Your task to perform on an android device: turn smart compose on in the gmail app Image 0: 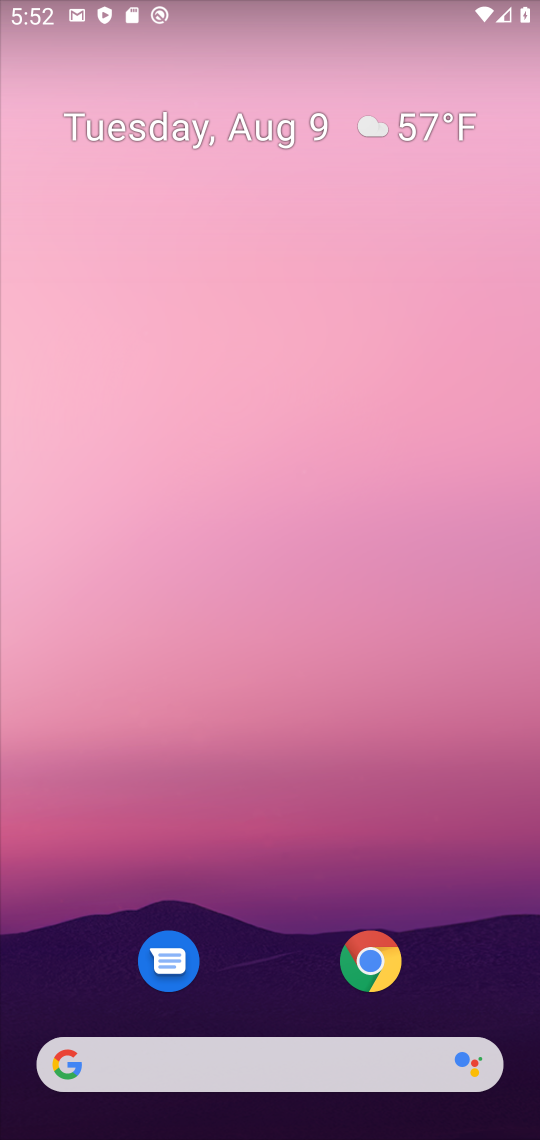
Step 0: drag from (118, 569) to (171, 526)
Your task to perform on an android device: turn smart compose on in the gmail app Image 1: 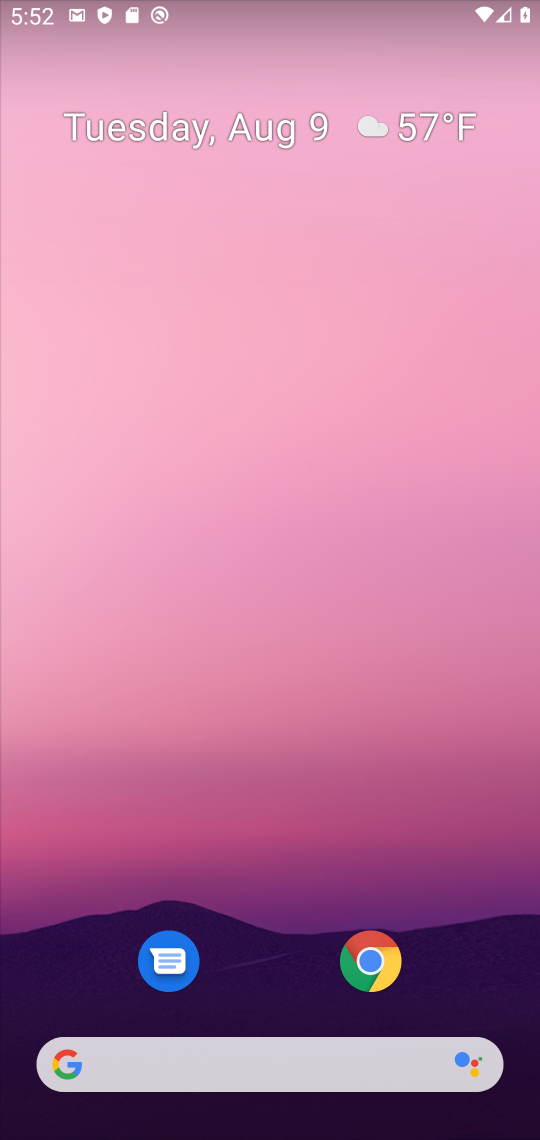
Step 1: drag from (283, 1042) to (185, 342)
Your task to perform on an android device: turn smart compose on in the gmail app Image 2: 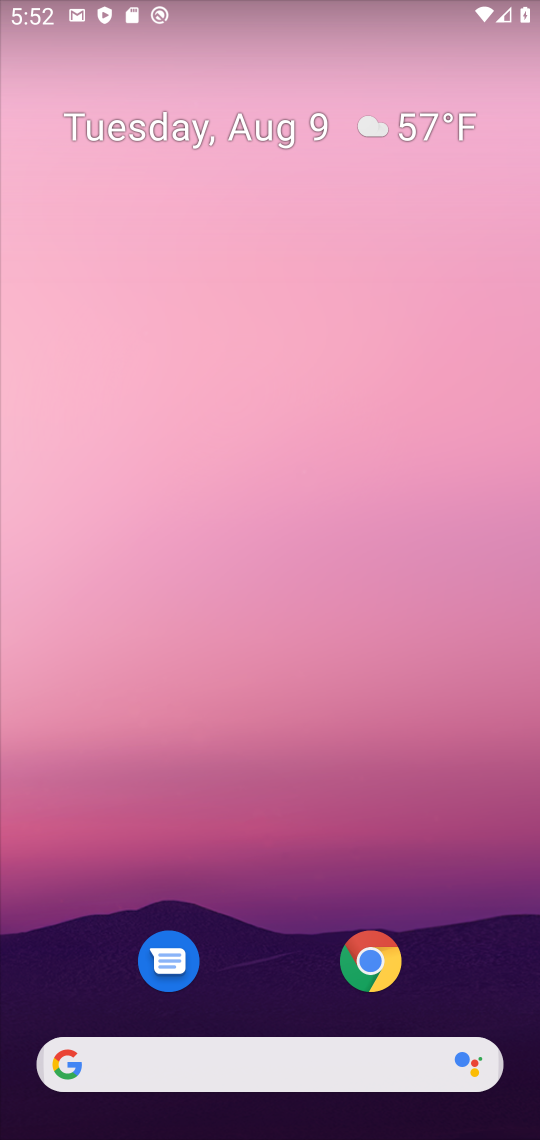
Step 2: drag from (202, 925) to (206, 400)
Your task to perform on an android device: turn smart compose on in the gmail app Image 3: 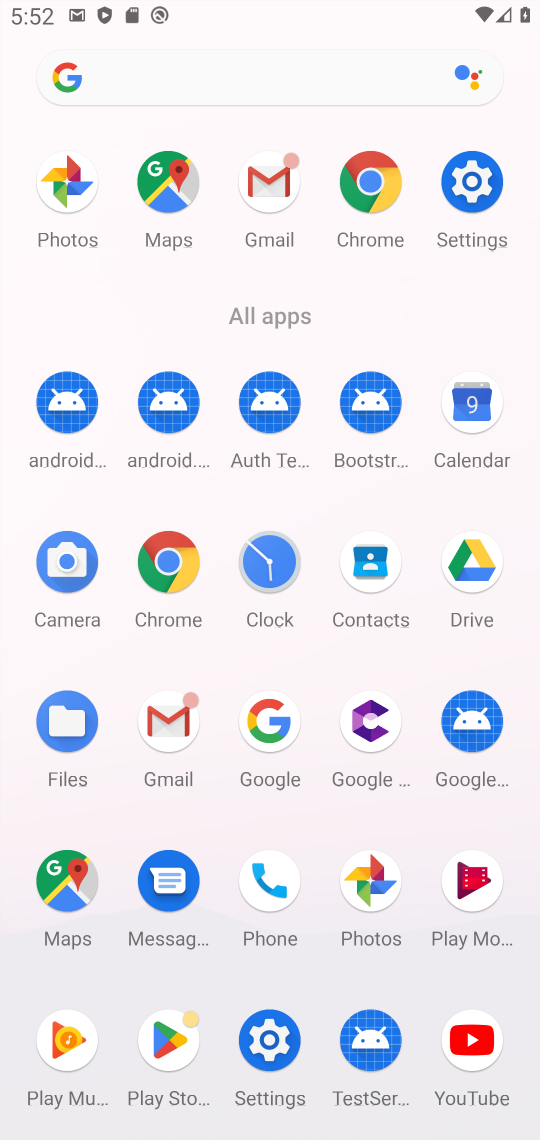
Step 3: click (177, 728)
Your task to perform on an android device: turn smart compose on in the gmail app Image 4: 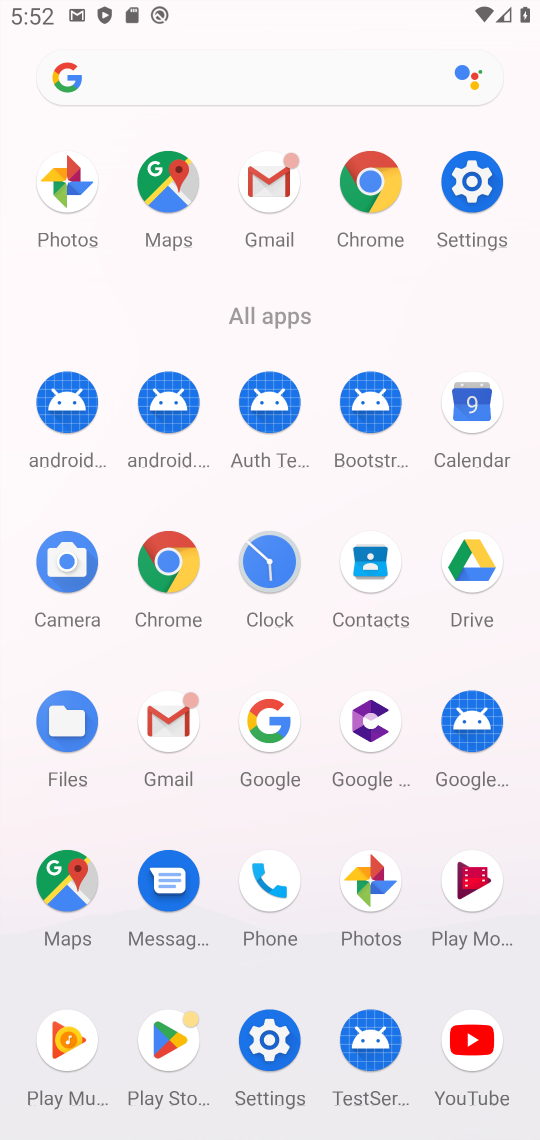
Step 4: click (170, 734)
Your task to perform on an android device: turn smart compose on in the gmail app Image 5: 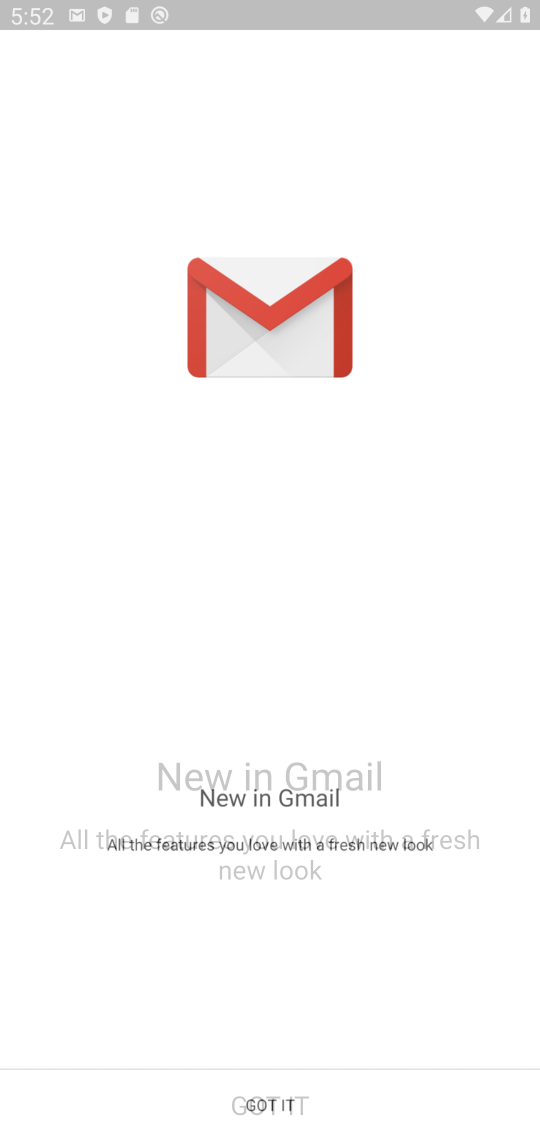
Step 5: click (164, 740)
Your task to perform on an android device: turn smart compose on in the gmail app Image 6: 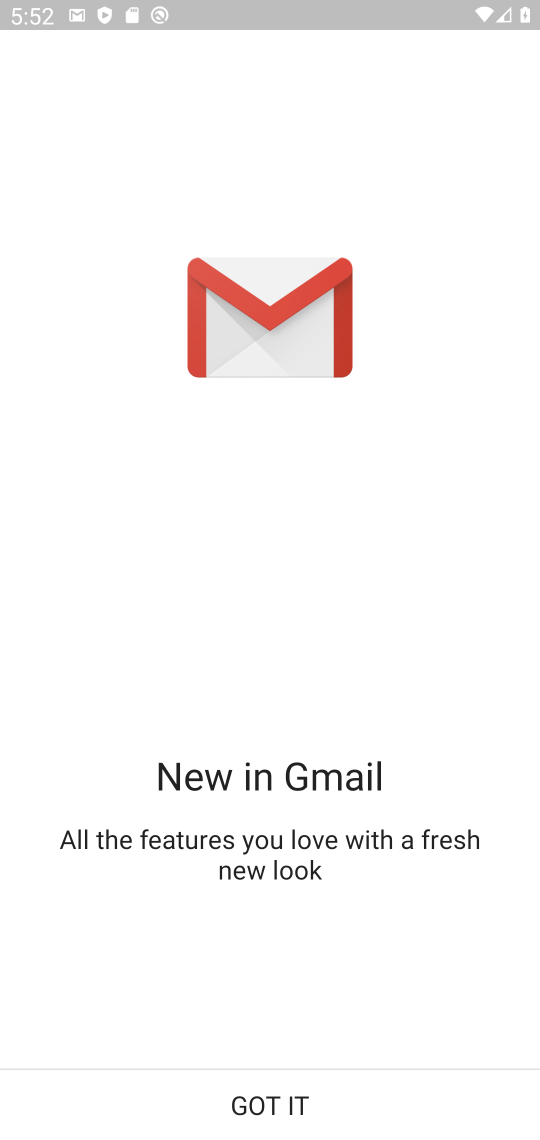
Step 6: click (164, 747)
Your task to perform on an android device: turn smart compose on in the gmail app Image 7: 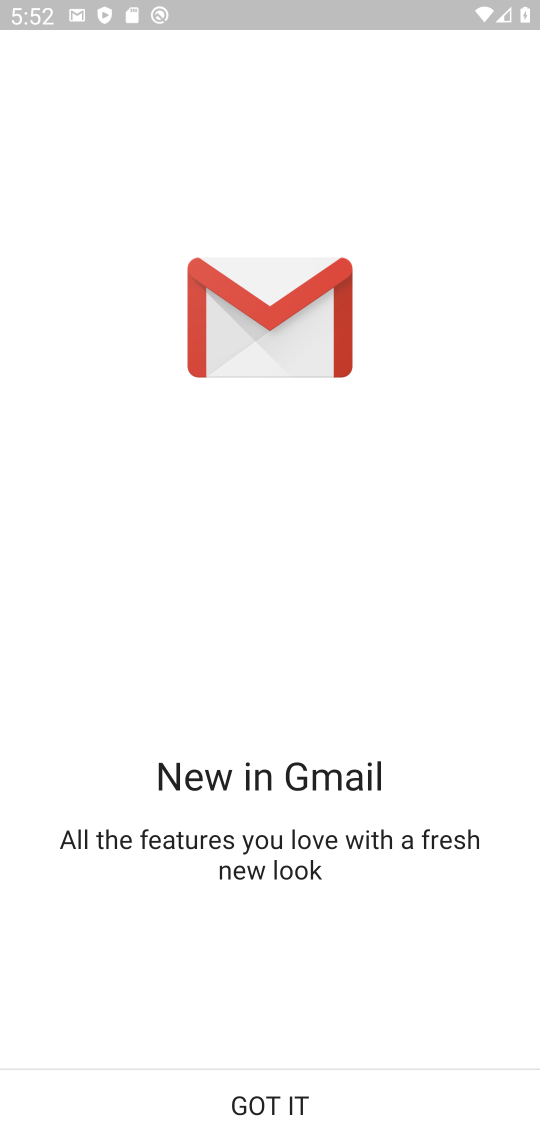
Step 7: click (171, 731)
Your task to perform on an android device: turn smart compose on in the gmail app Image 8: 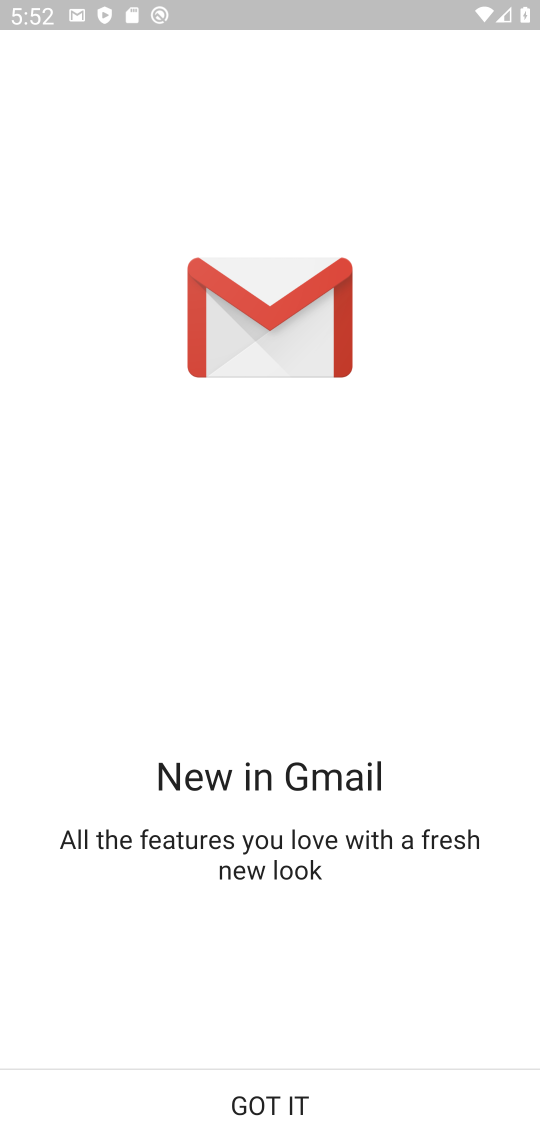
Step 8: click (293, 1071)
Your task to perform on an android device: turn smart compose on in the gmail app Image 9: 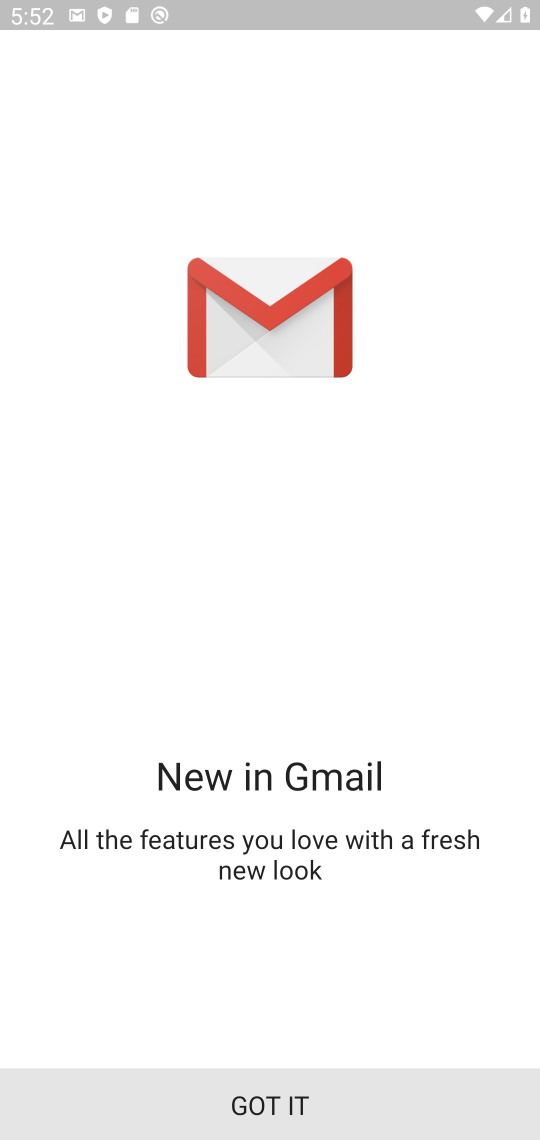
Step 9: click (304, 1106)
Your task to perform on an android device: turn smart compose on in the gmail app Image 10: 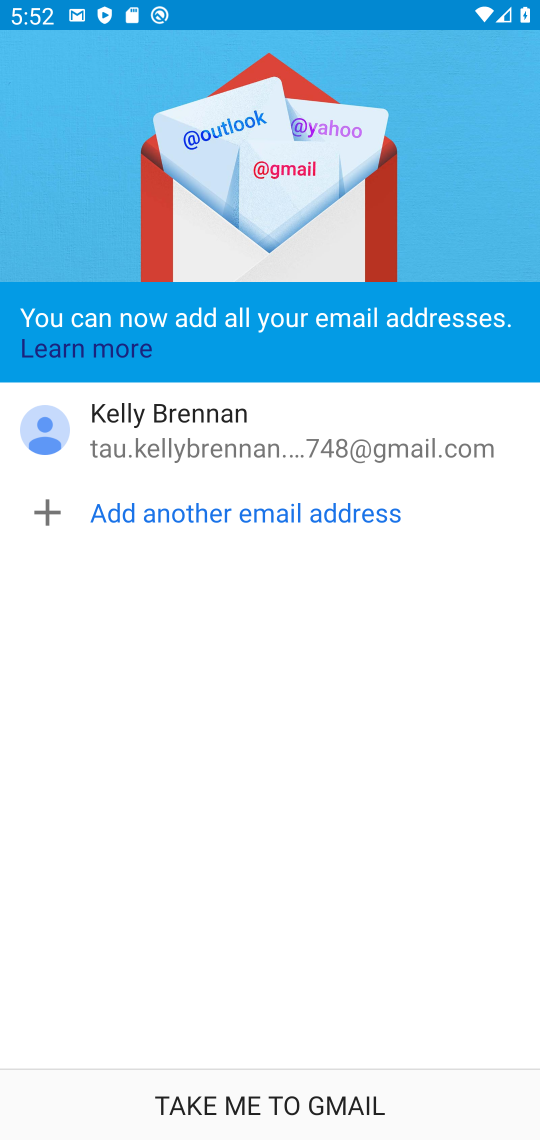
Step 10: click (306, 1094)
Your task to perform on an android device: turn smart compose on in the gmail app Image 11: 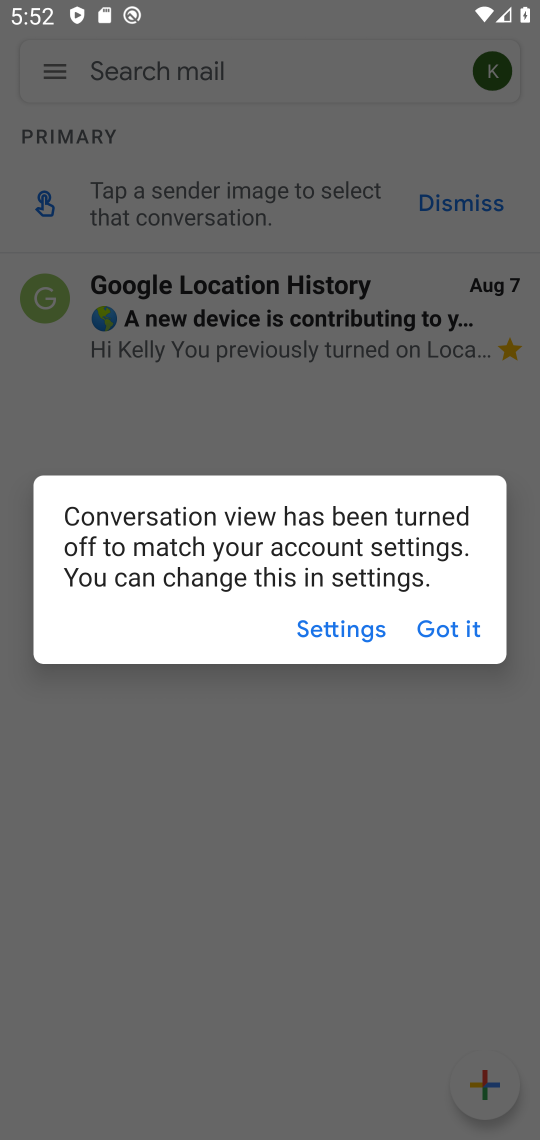
Step 11: click (450, 618)
Your task to perform on an android device: turn smart compose on in the gmail app Image 12: 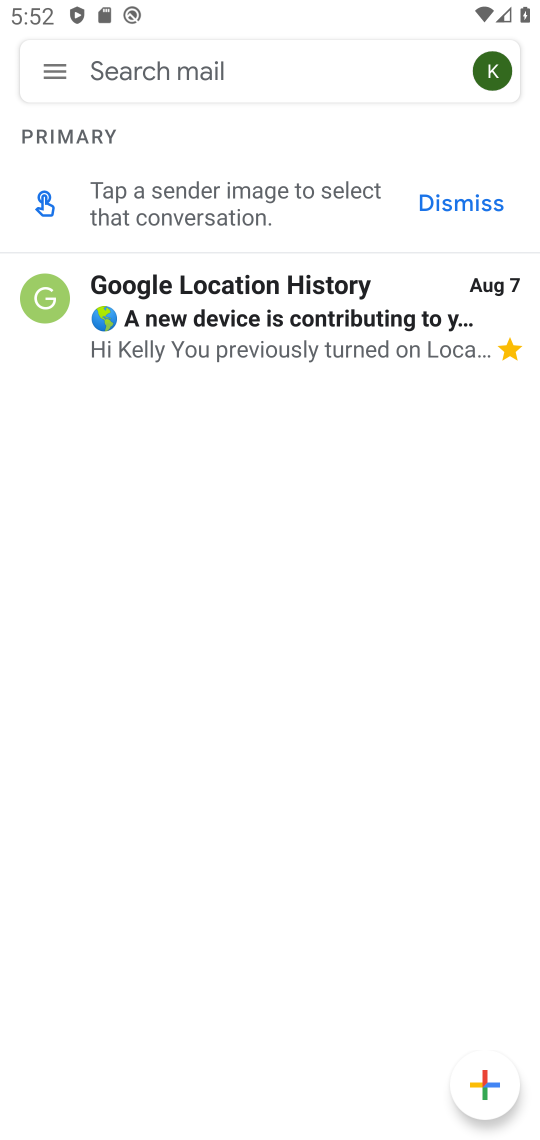
Step 12: click (47, 89)
Your task to perform on an android device: turn smart compose on in the gmail app Image 13: 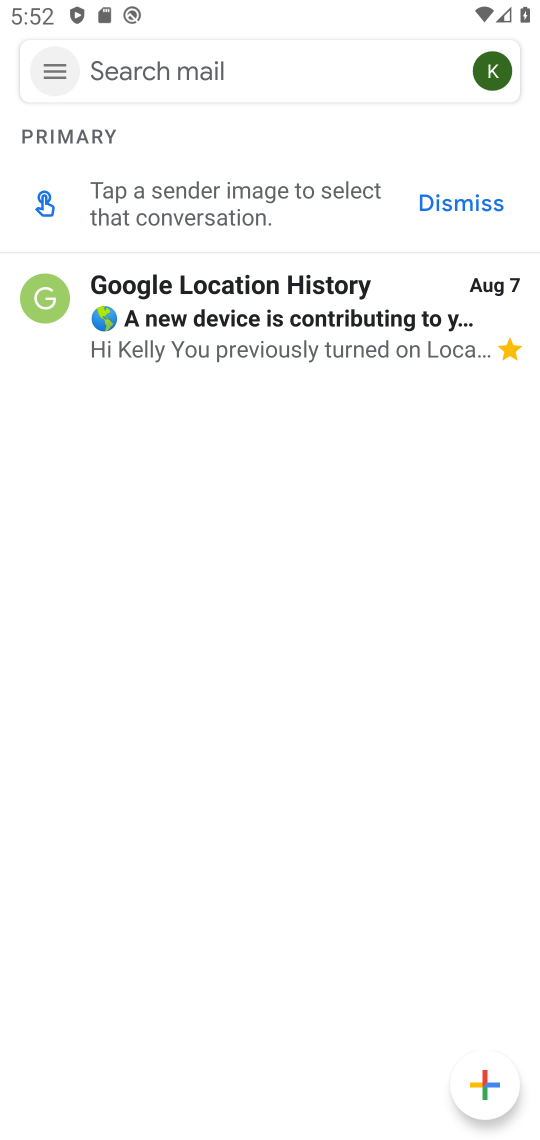
Step 13: click (49, 72)
Your task to perform on an android device: turn smart compose on in the gmail app Image 14: 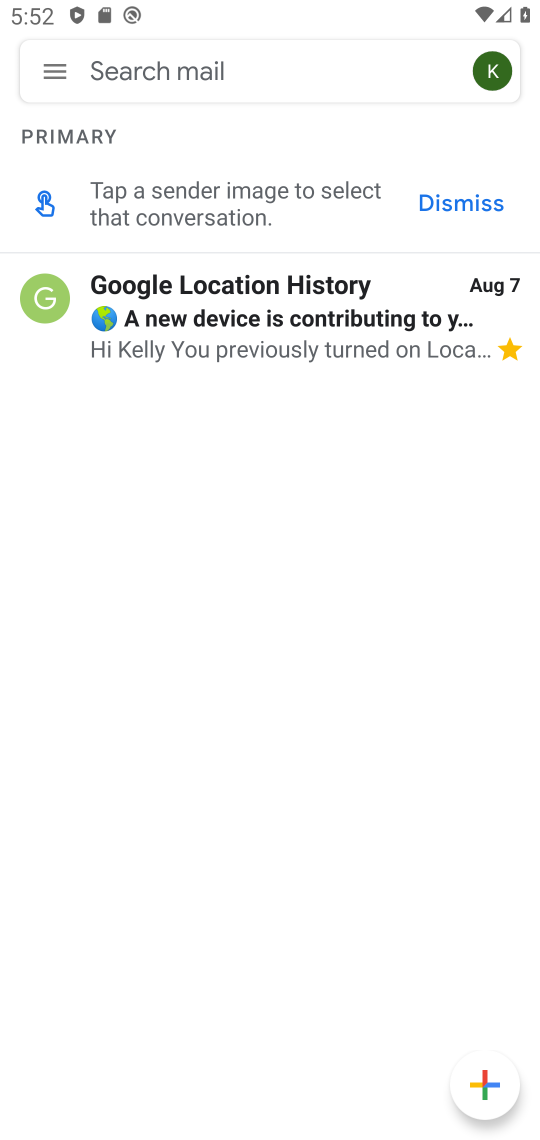
Step 14: click (51, 72)
Your task to perform on an android device: turn smart compose on in the gmail app Image 15: 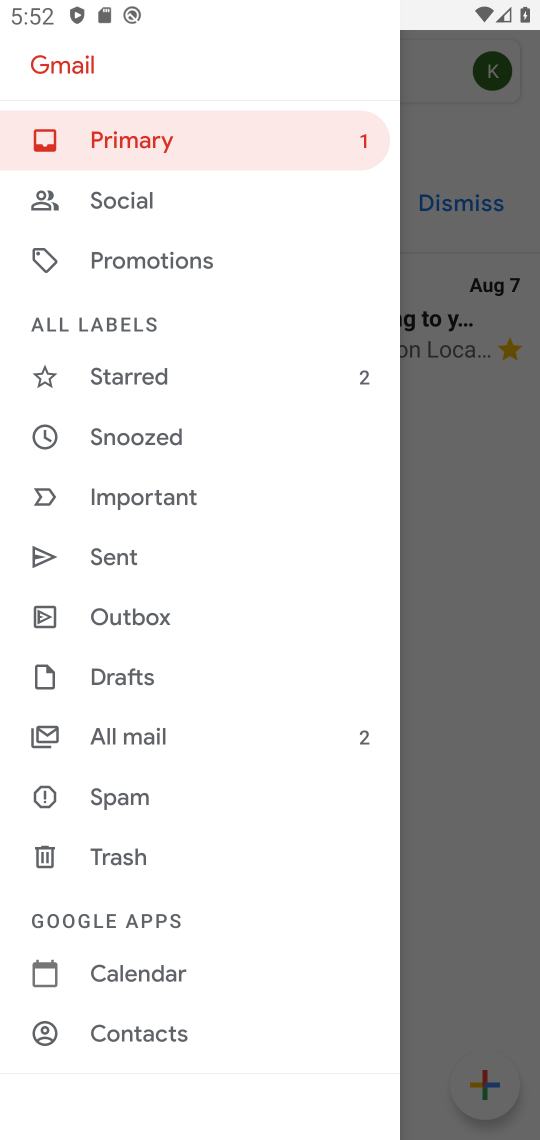
Step 15: drag from (163, 971) to (150, 273)
Your task to perform on an android device: turn smart compose on in the gmail app Image 16: 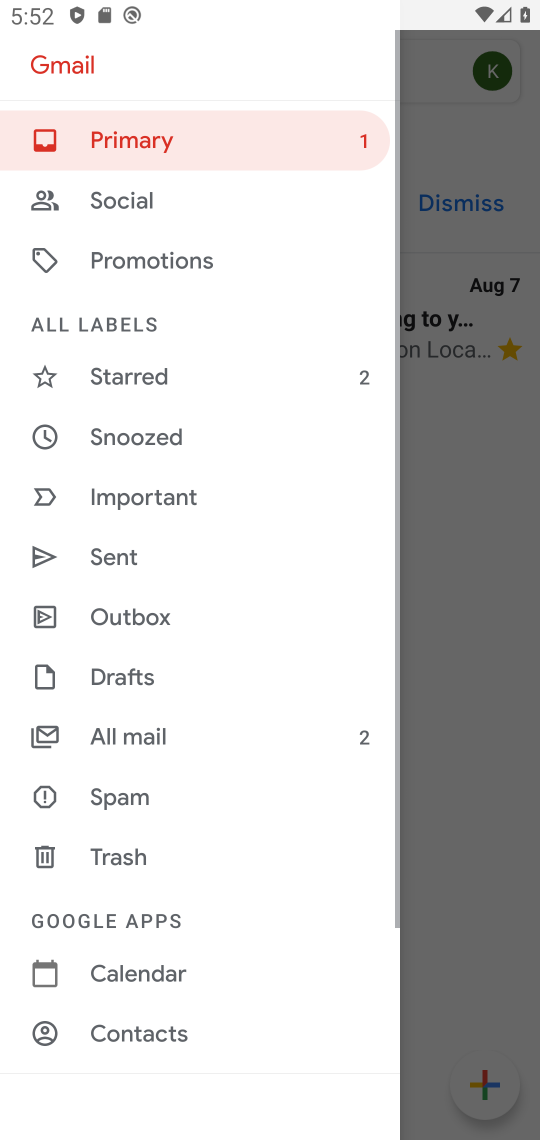
Step 16: drag from (59, 909) to (50, 284)
Your task to perform on an android device: turn smart compose on in the gmail app Image 17: 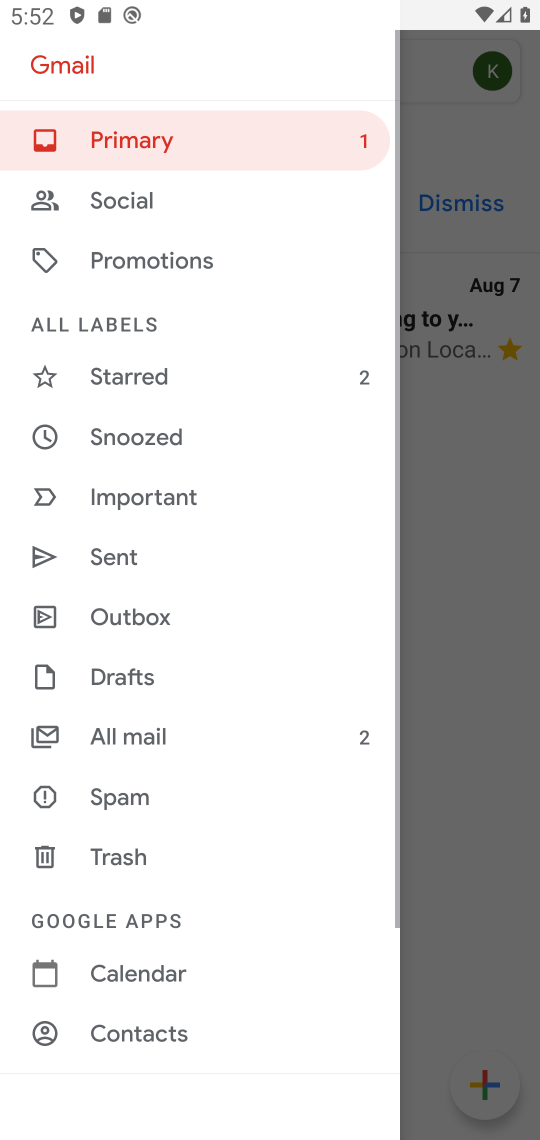
Step 17: drag from (130, 866) to (153, 267)
Your task to perform on an android device: turn smart compose on in the gmail app Image 18: 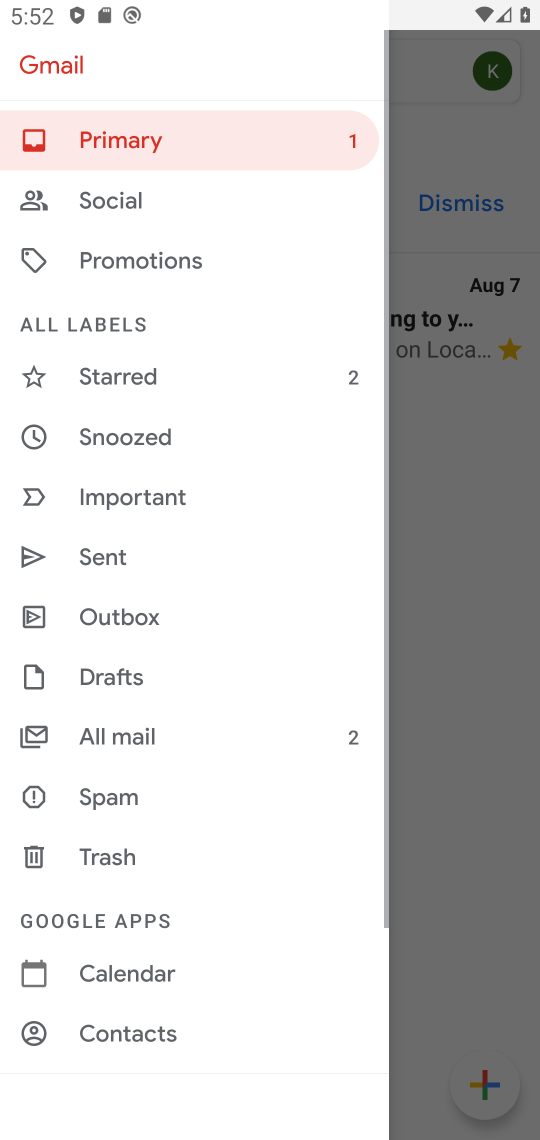
Step 18: drag from (155, 1016) to (143, 268)
Your task to perform on an android device: turn smart compose on in the gmail app Image 19: 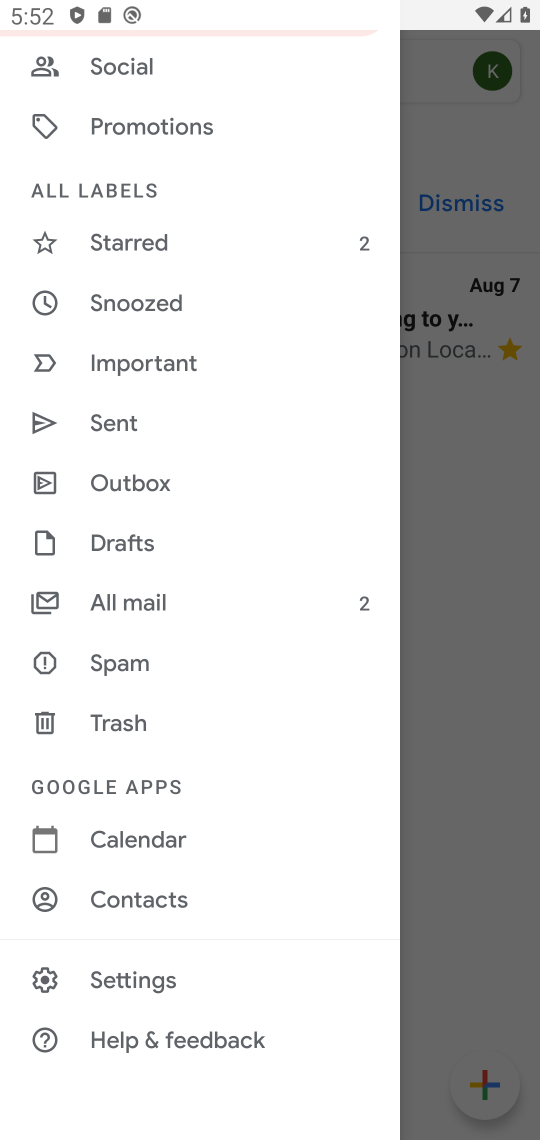
Step 19: click (134, 977)
Your task to perform on an android device: turn smart compose on in the gmail app Image 20: 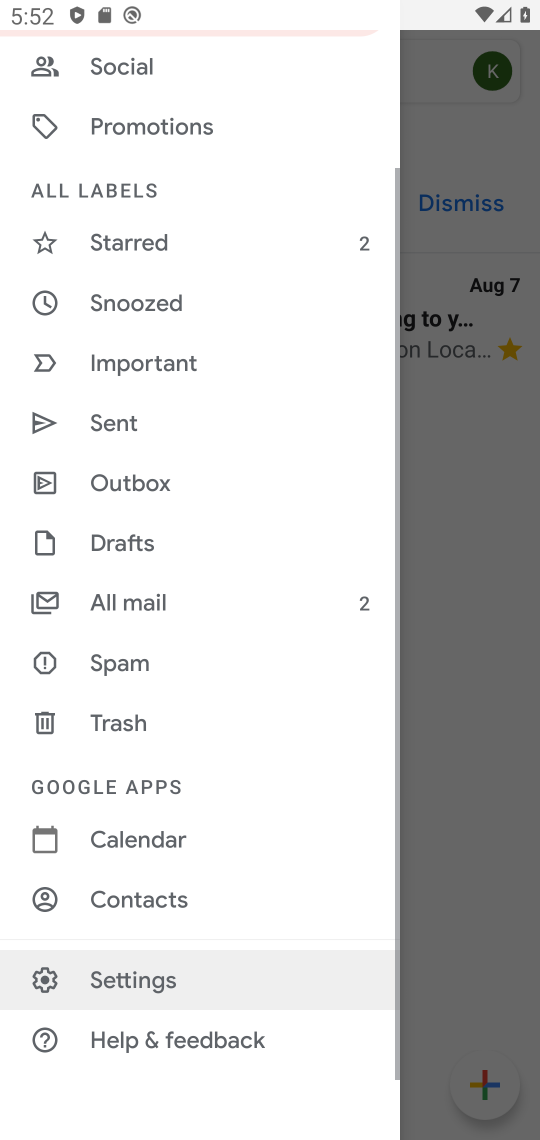
Step 20: click (134, 974)
Your task to perform on an android device: turn smart compose on in the gmail app Image 21: 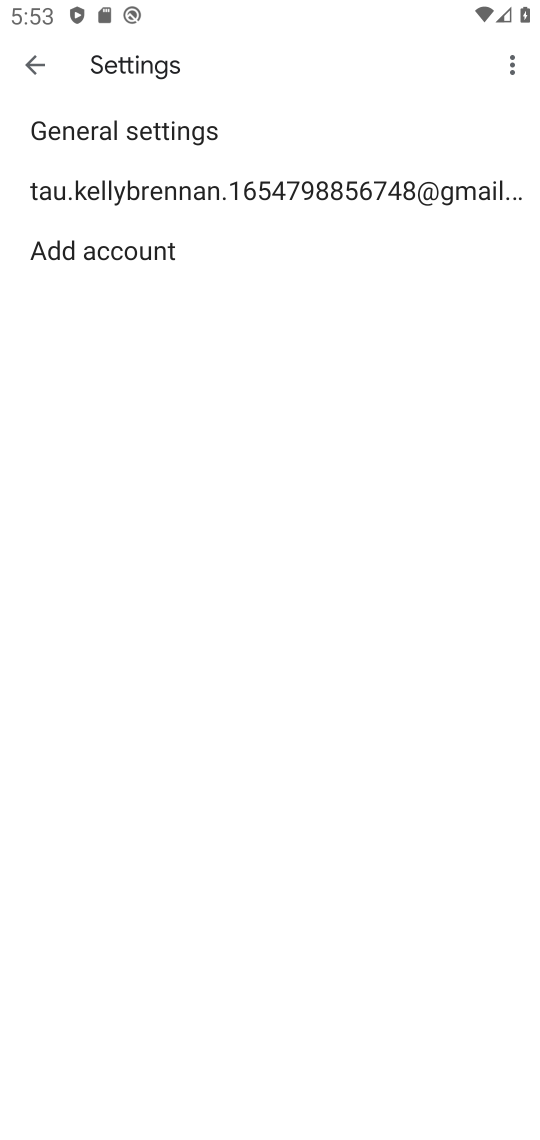
Step 21: click (87, 188)
Your task to perform on an android device: turn smart compose on in the gmail app Image 22: 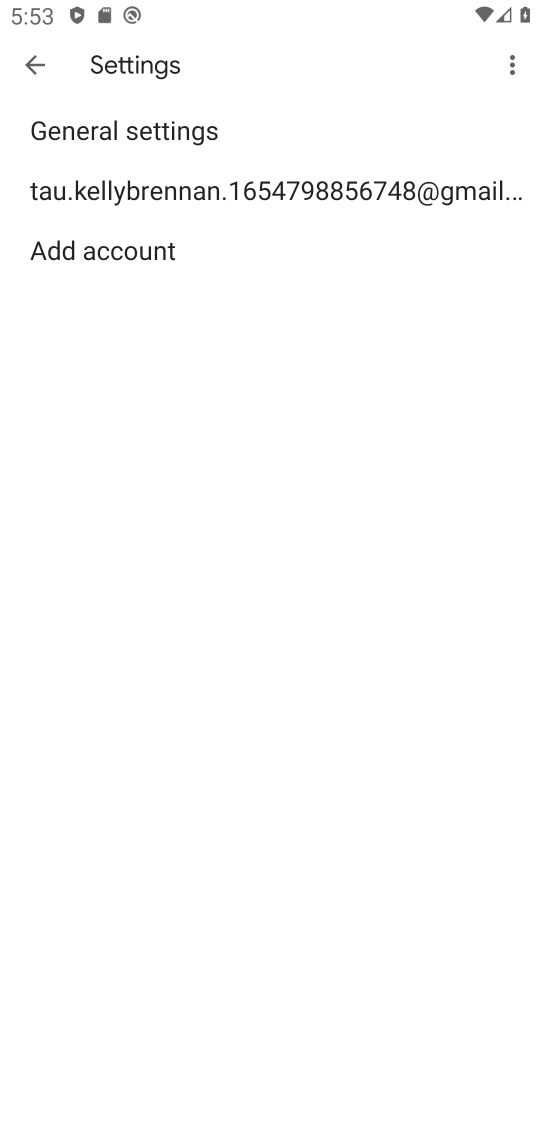
Step 22: click (95, 187)
Your task to perform on an android device: turn smart compose on in the gmail app Image 23: 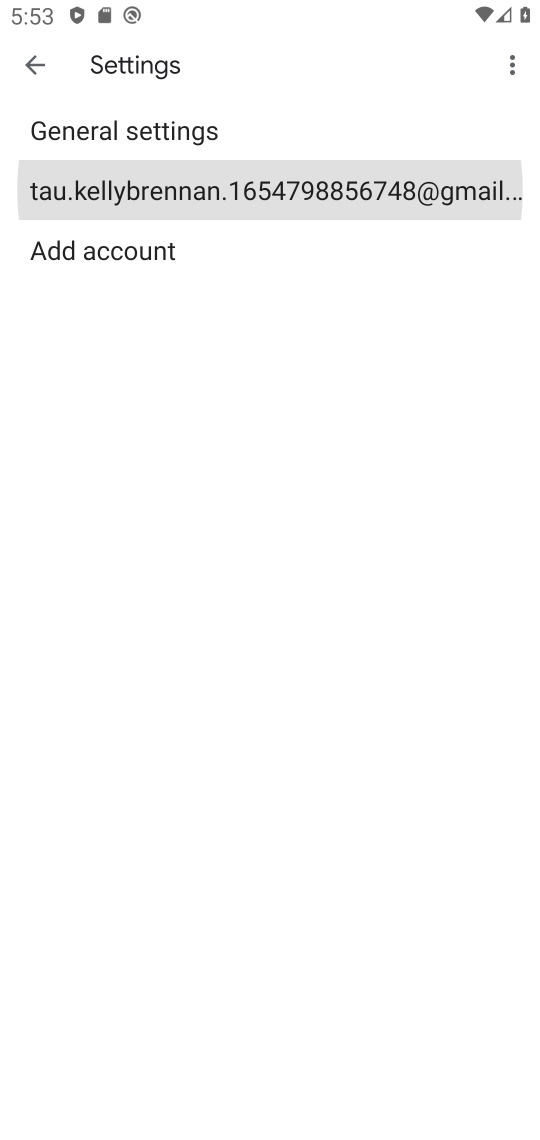
Step 23: click (93, 181)
Your task to perform on an android device: turn smart compose on in the gmail app Image 24: 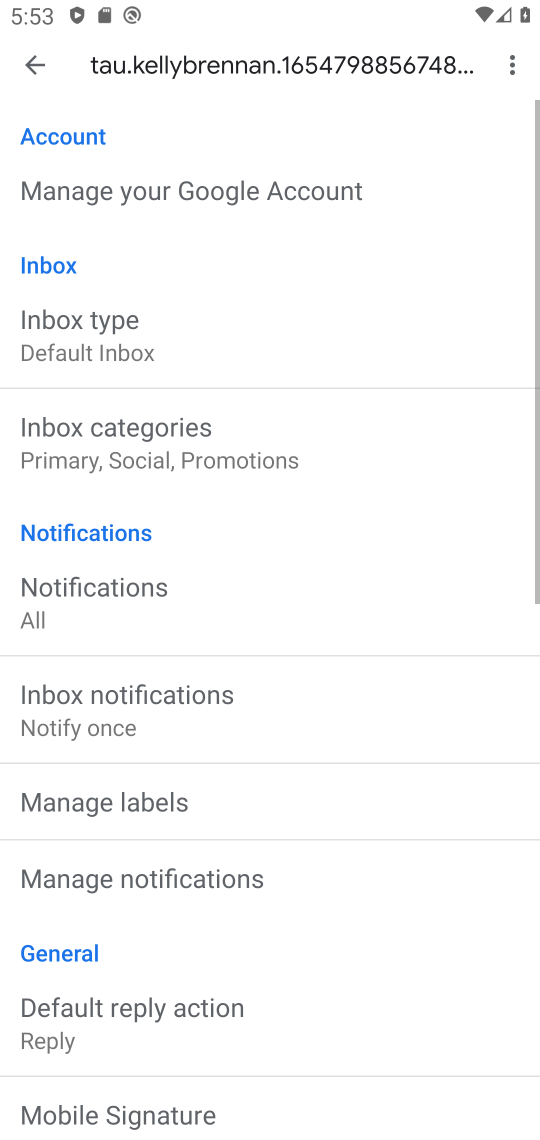
Step 24: click (96, 179)
Your task to perform on an android device: turn smart compose on in the gmail app Image 25: 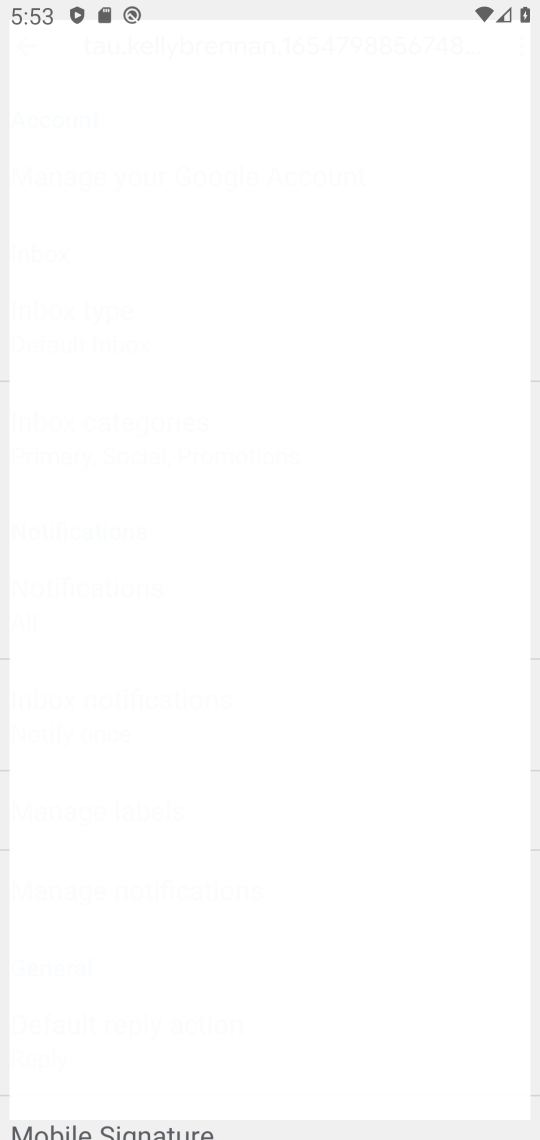
Step 25: drag from (146, 1020) to (129, 500)
Your task to perform on an android device: turn smart compose on in the gmail app Image 26: 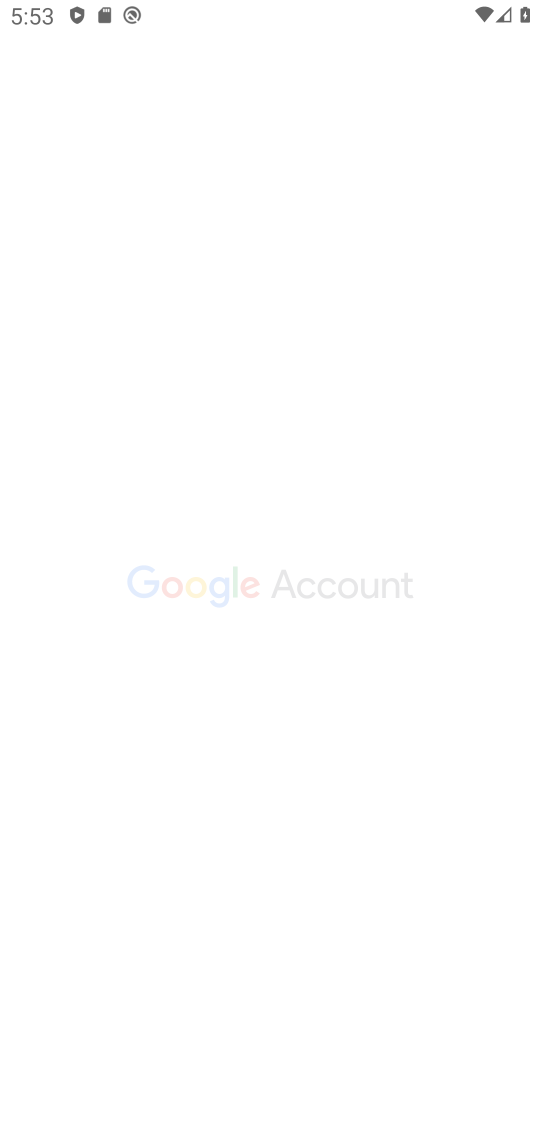
Step 26: click (92, 270)
Your task to perform on an android device: turn smart compose on in the gmail app Image 27: 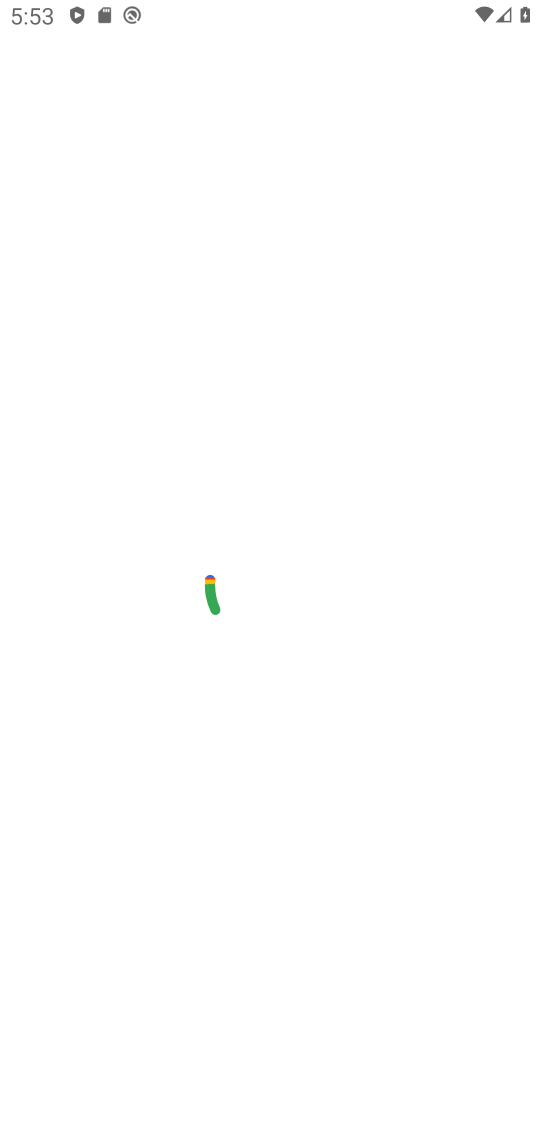
Step 27: press back button
Your task to perform on an android device: turn smart compose on in the gmail app Image 28: 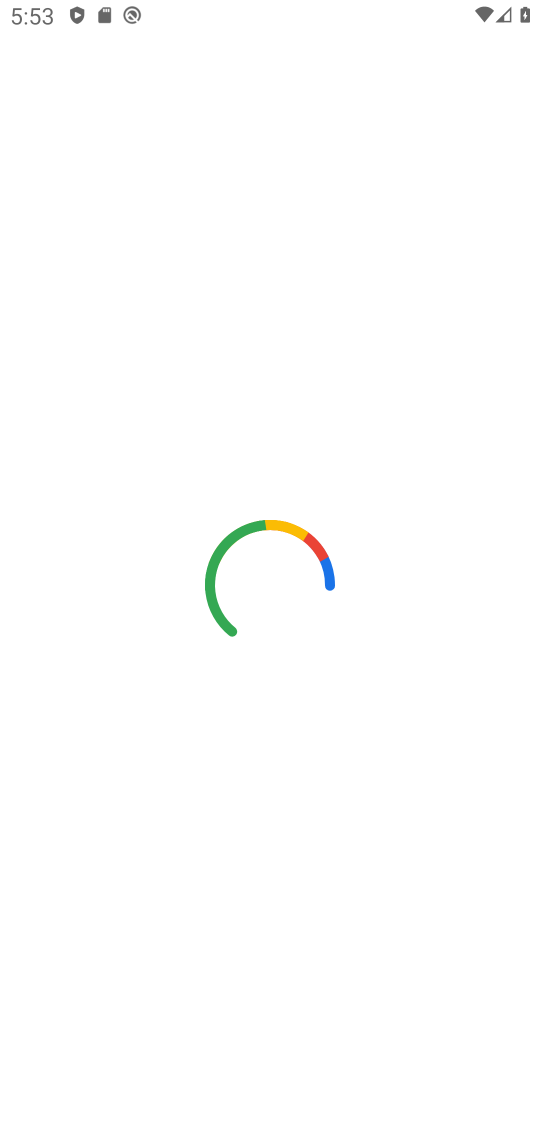
Step 28: press back button
Your task to perform on an android device: turn smart compose on in the gmail app Image 29: 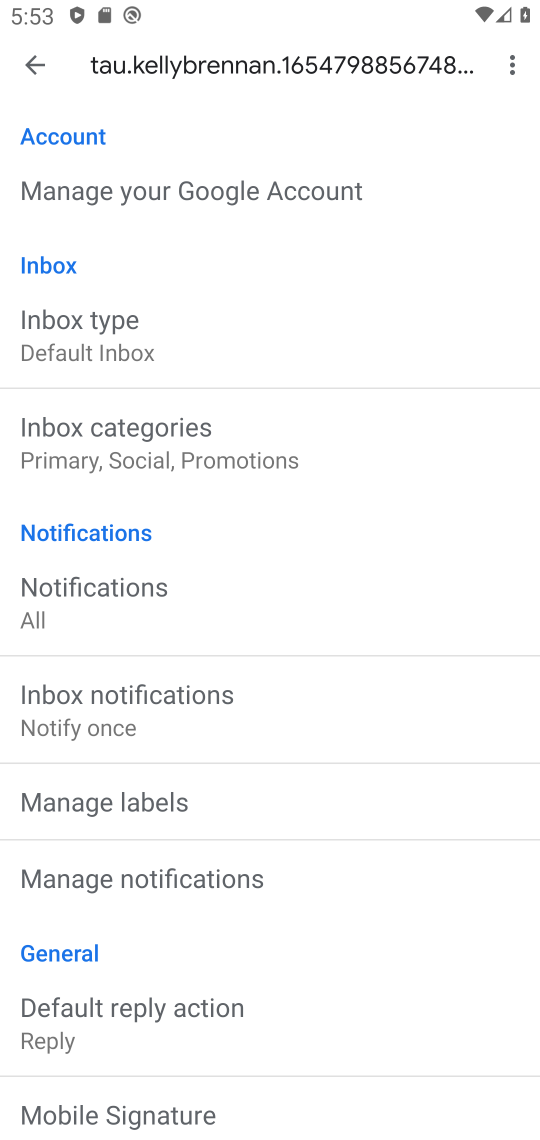
Step 29: drag from (1, 335) to (114, 418)
Your task to perform on an android device: turn smart compose on in the gmail app Image 30: 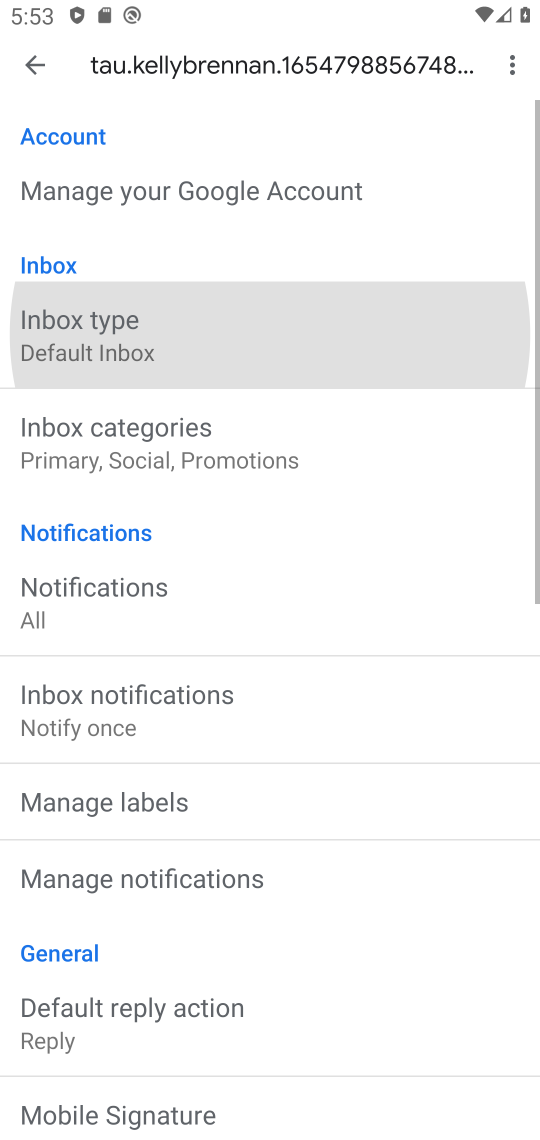
Step 30: drag from (174, 935) to (174, 294)
Your task to perform on an android device: turn smart compose on in the gmail app Image 31: 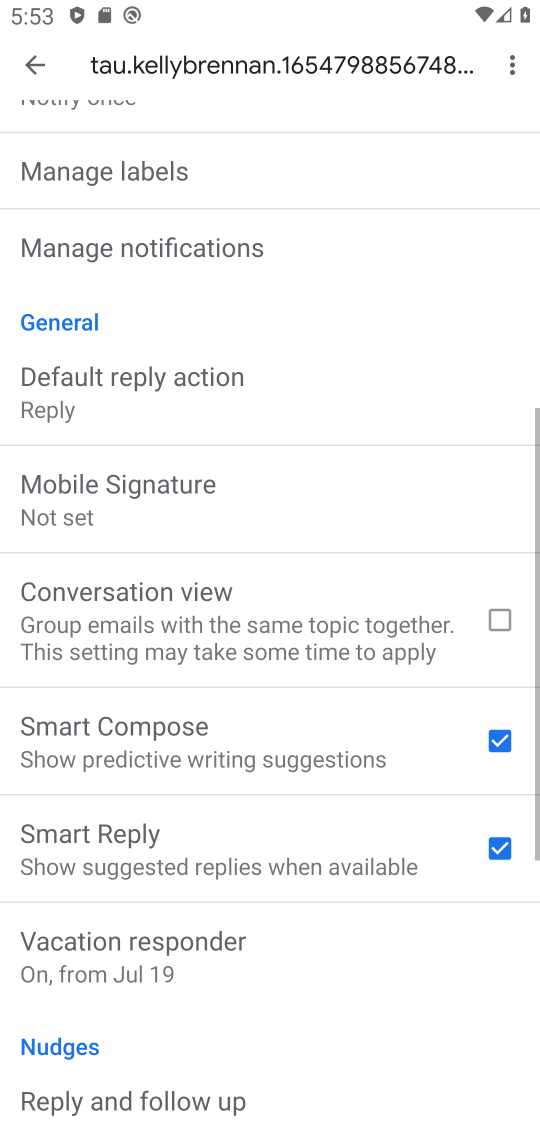
Step 31: drag from (151, 1039) to (85, 265)
Your task to perform on an android device: turn smart compose on in the gmail app Image 32: 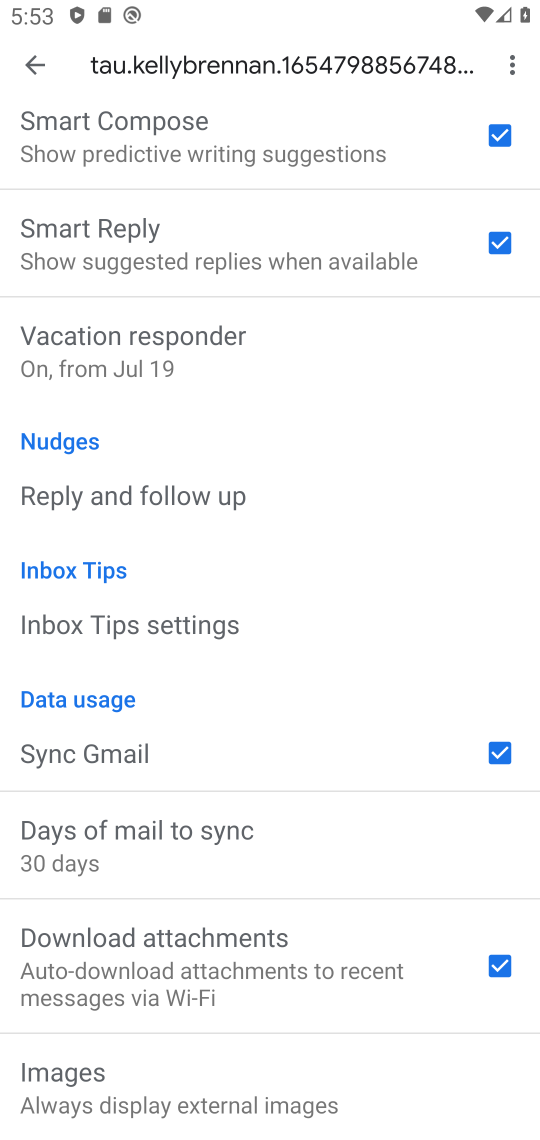
Step 32: click (497, 133)
Your task to perform on an android device: turn smart compose on in the gmail app Image 33: 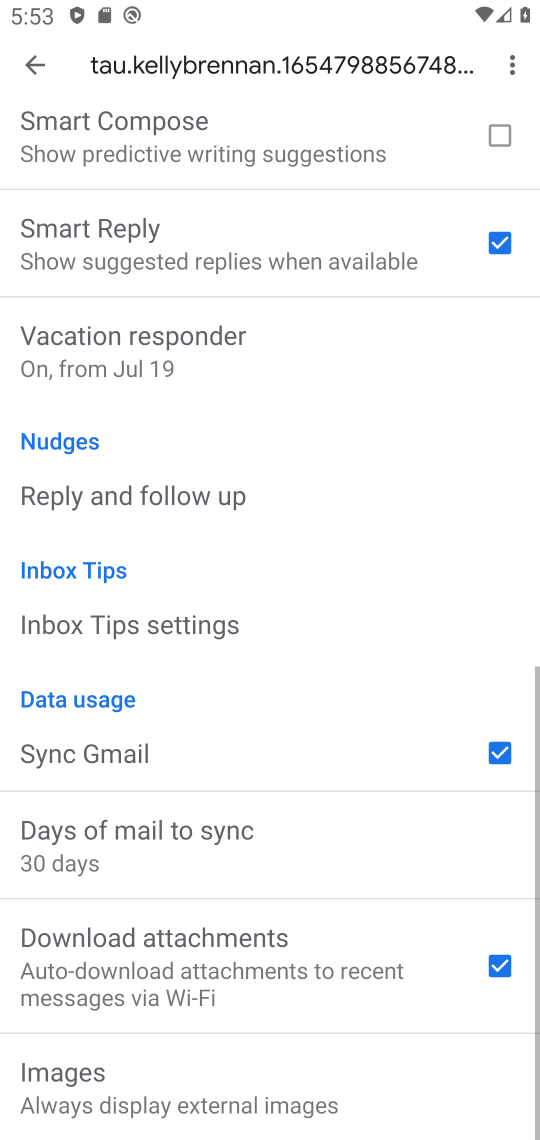
Step 33: task complete